Your task to perform on an android device: turn off data saver in the chrome app Image 0: 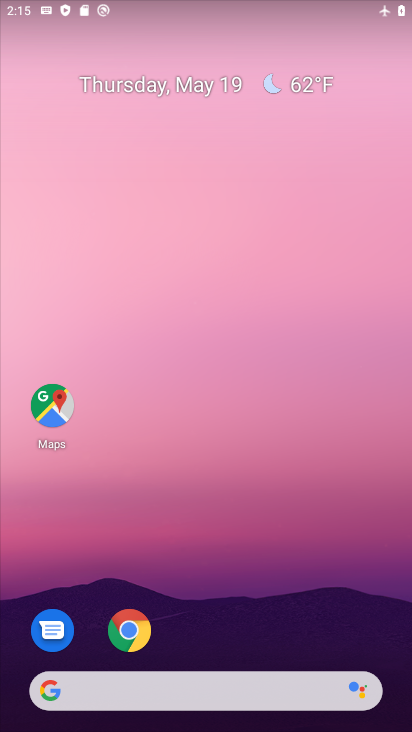
Step 0: drag from (287, 631) to (242, 136)
Your task to perform on an android device: turn off data saver in the chrome app Image 1: 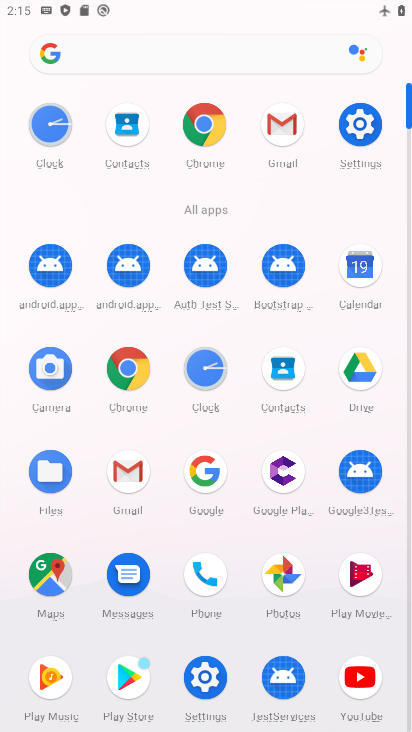
Step 1: click (140, 377)
Your task to perform on an android device: turn off data saver in the chrome app Image 2: 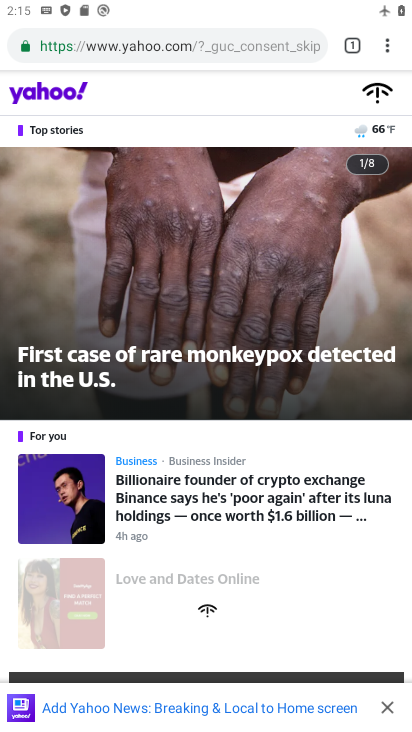
Step 2: drag from (390, 53) to (255, 546)
Your task to perform on an android device: turn off data saver in the chrome app Image 3: 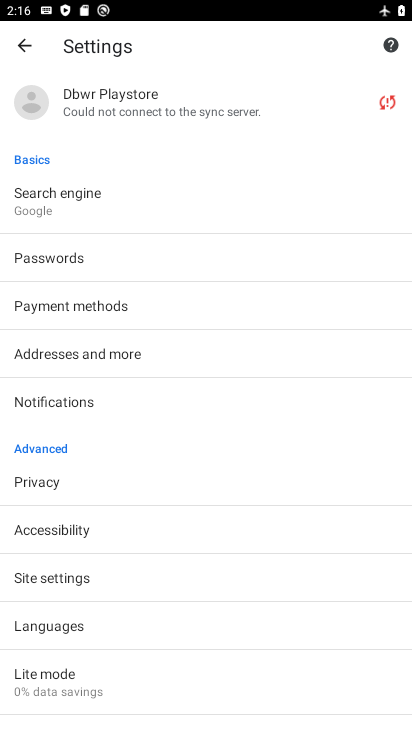
Step 3: click (77, 677)
Your task to perform on an android device: turn off data saver in the chrome app Image 4: 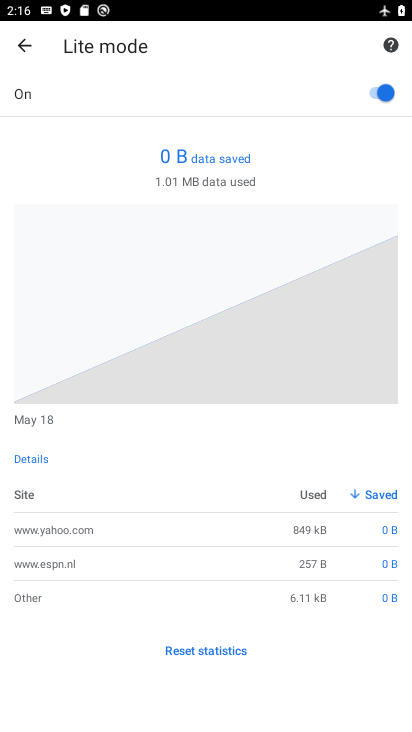
Step 4: click (373, 93)
Your task to perform on an android device: turn off data saver in the chrome app Image 5: 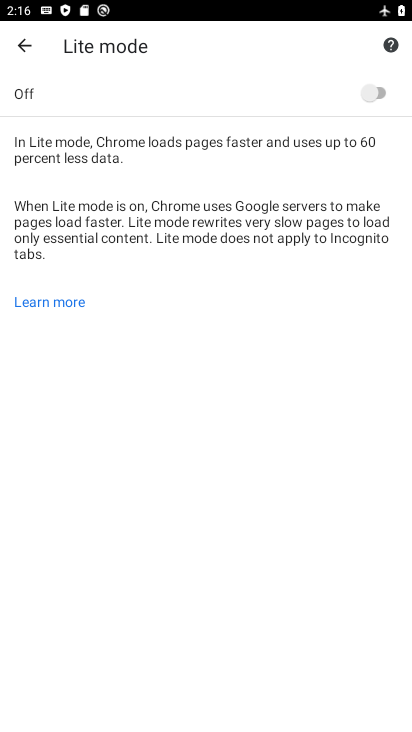
Step 5: task complete